Your task to perform on an android device: Turn off the flashlight Image 0: 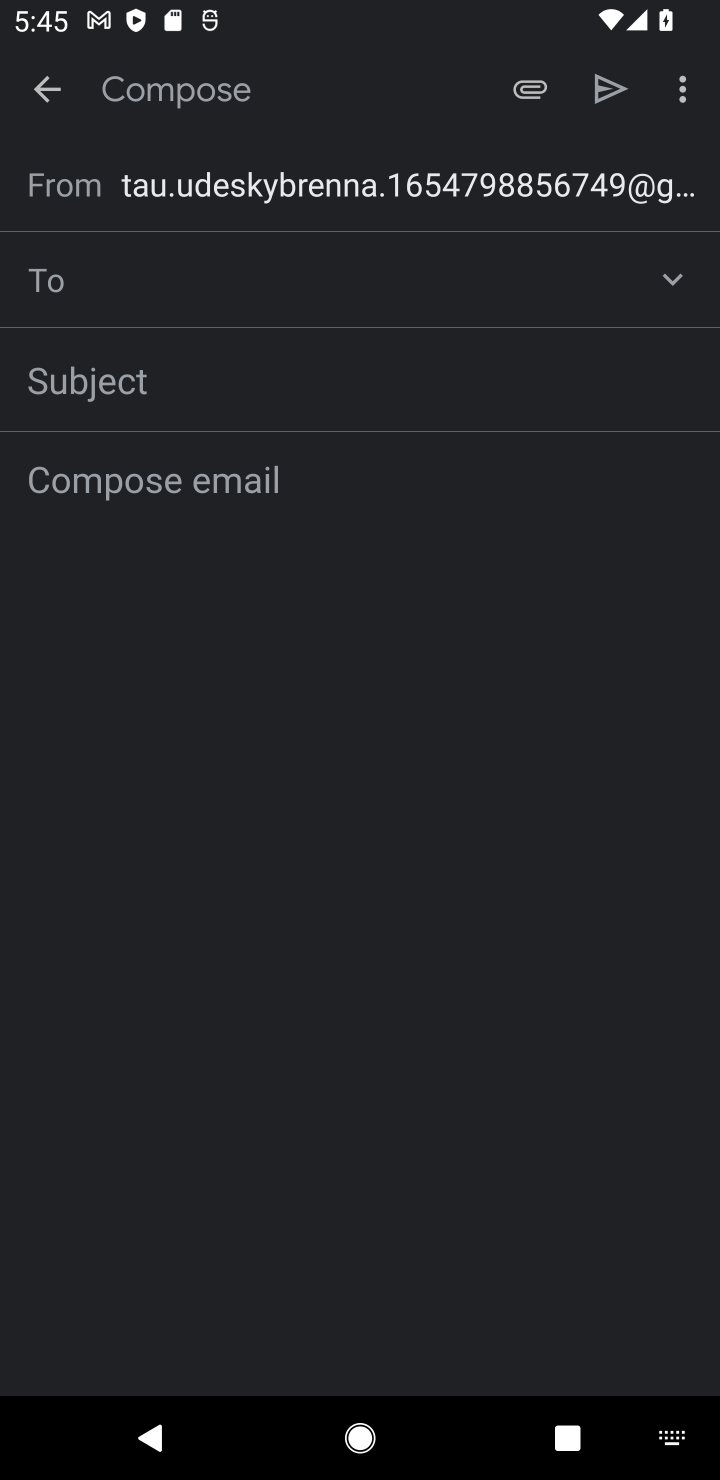
Step 0: task complete